Your task to perform on an android device: Check the weather Image 0: 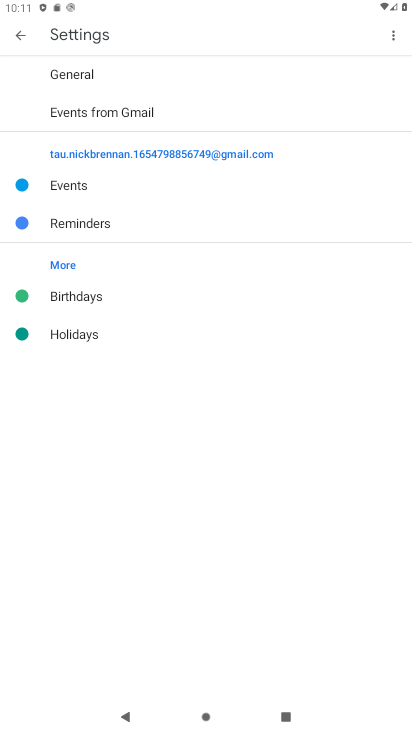
Step 0: press home button
Your task to perform on an android device: Check the weather Image 1: 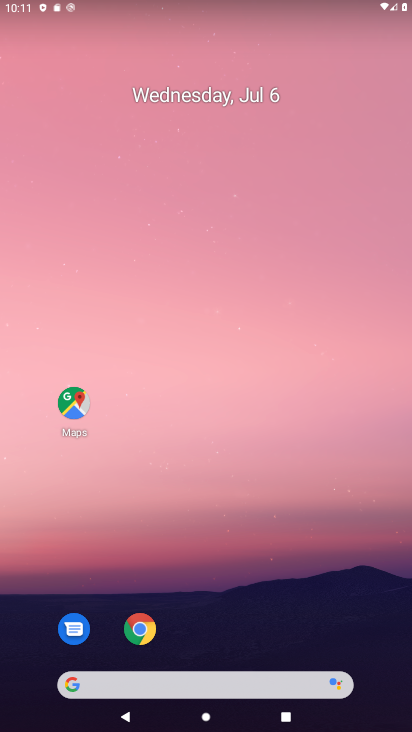
Step 1: drag from (270, 627) to (269, 167)
Your task to perform on an android device: Check the weather Image 2: 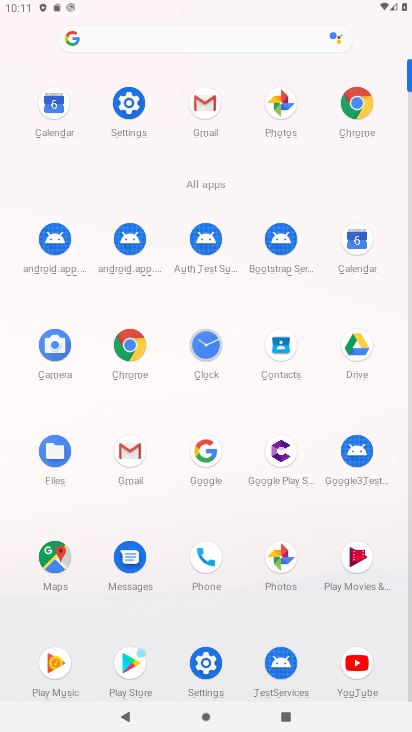
Step 2: click (370, 120)
Your task to perform on an android device: Check the weather Image 3: 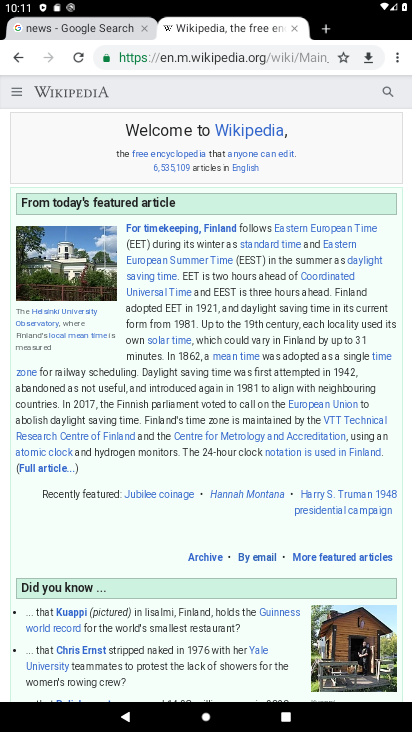
Step 3: click (224, 58)
Your task to perform on an android device: Check the weather Image 4: 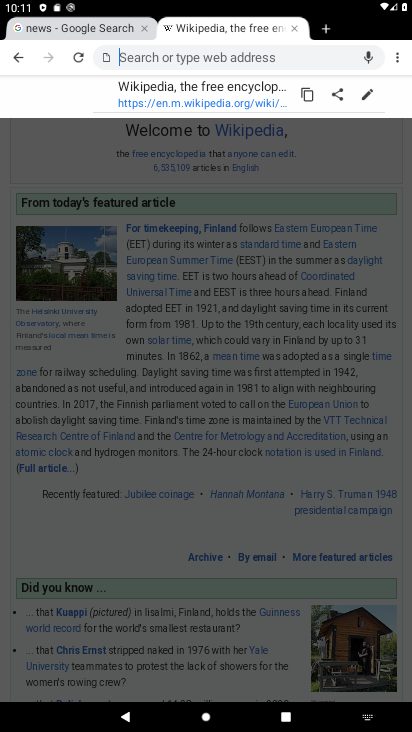
Step 4: type "Check the weather"
Your task to perform on an android device: Check the weather Image 5: 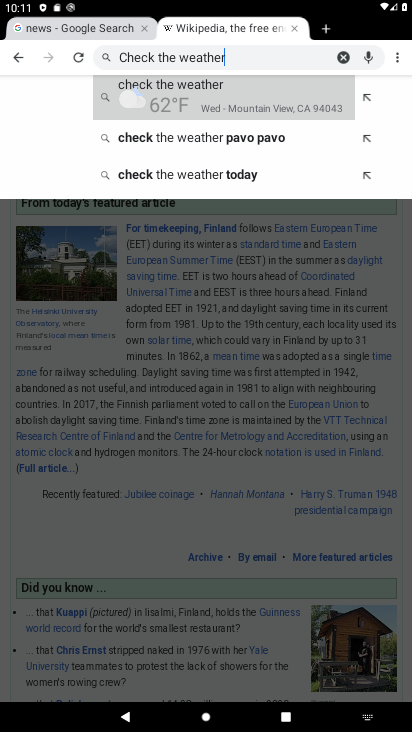
Step 5: click (235, 103)
Your task to perform on an android device: Check the weather Image 6: 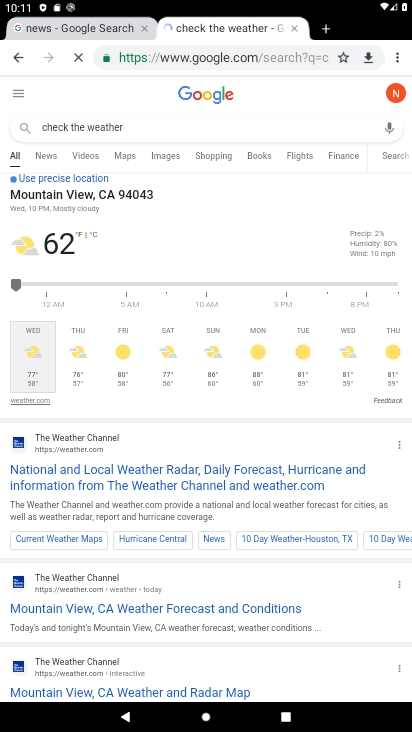
Step 6: task complete